Your task to perform on an android device: What's on my calendar tomorrow? Image 0: 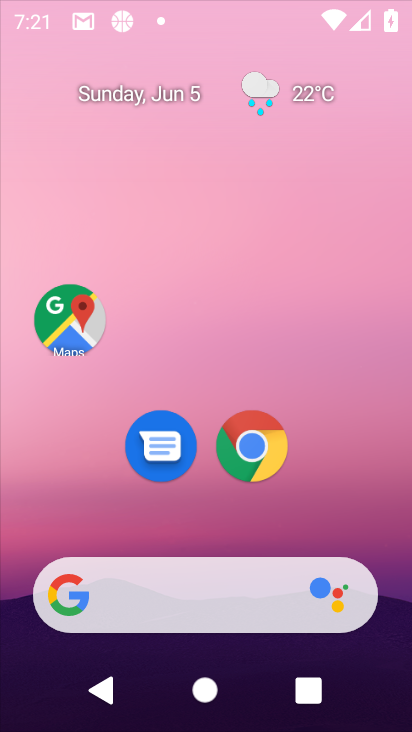
Step 0: drag from (153, 459) to (237, 68)
Your task to perform on an android device: What's on my calendar tomorrow? Image 1: 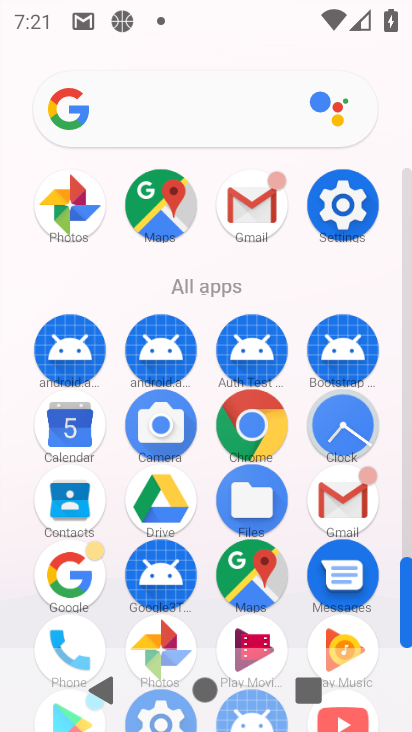
Step 1: click (67, 428)
Your task to perform on an android device: What's on my calendar tomorrow? Image 2: 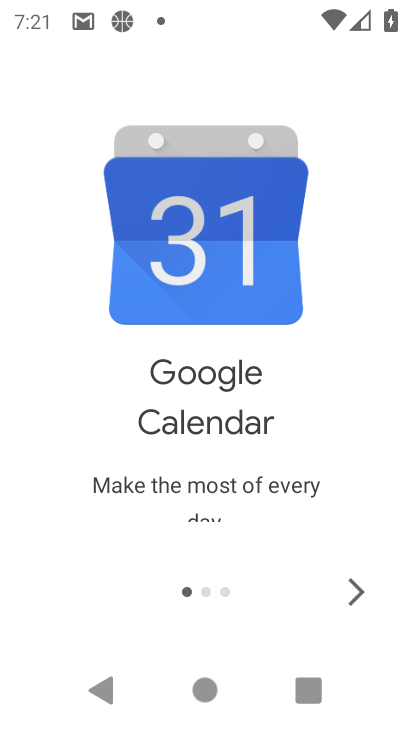
Step 2: click (354, 585)
Your task to perform on an android device: What's on my calendar tomorrow? Image 3: 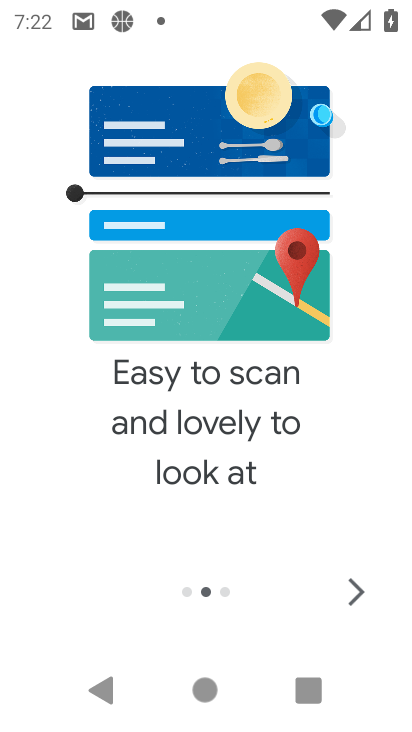
Step 3: click (354, 590)
Your task to perform on an android device: What's on my calendar tomorrow? Image 4: 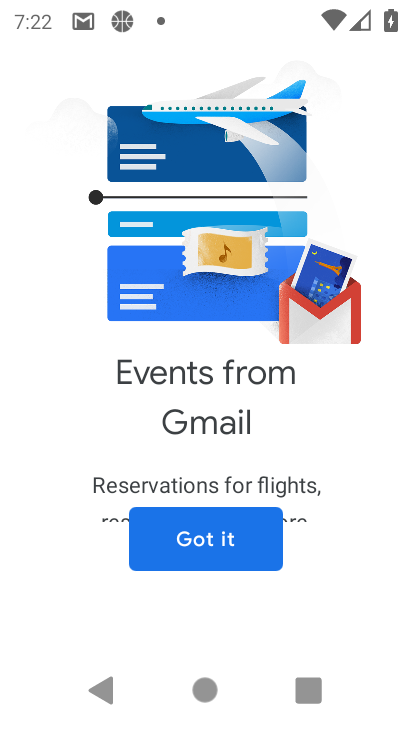
Step 4: click (225, 548)
Your task to perform on an android device: What's on my calendar tomorrow? Image 5: 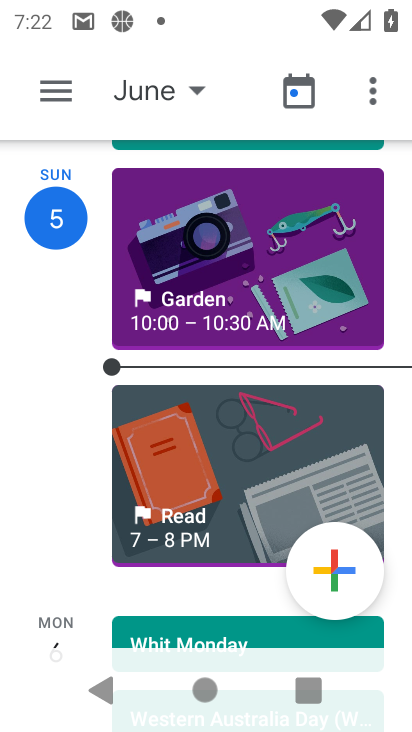
Step 5: click (193, 96)
Your task to perform on an android device: What's on my calendar tomorrow? Image 6: 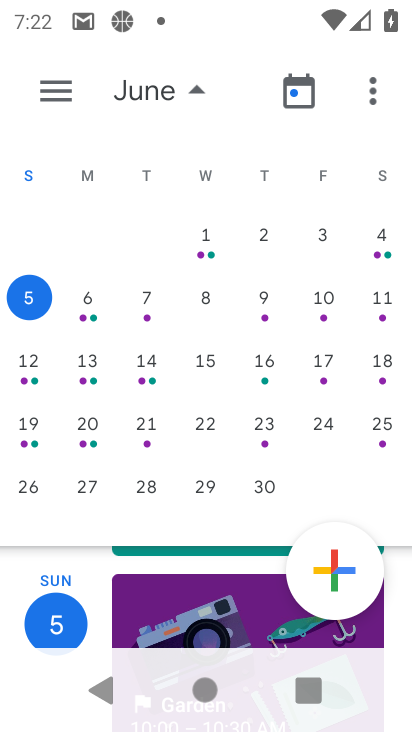
Step 6: click (93, 298)
Your task to perform on an android device: What's on my calendar tomorrow? Image 7: 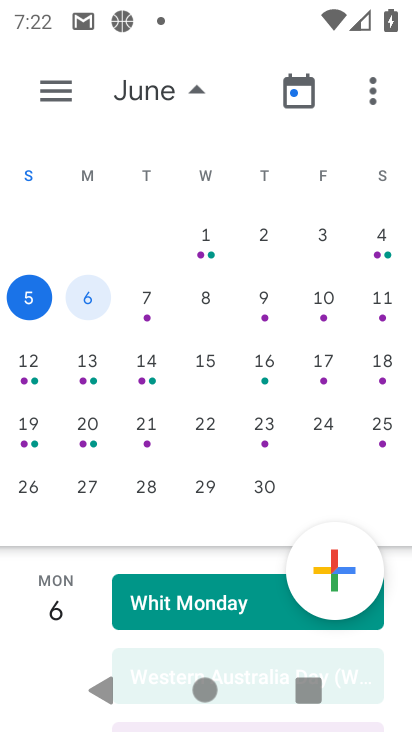
Step 7: task complete